Your task to perform on an android device: open sync settings in chrome Image 0: 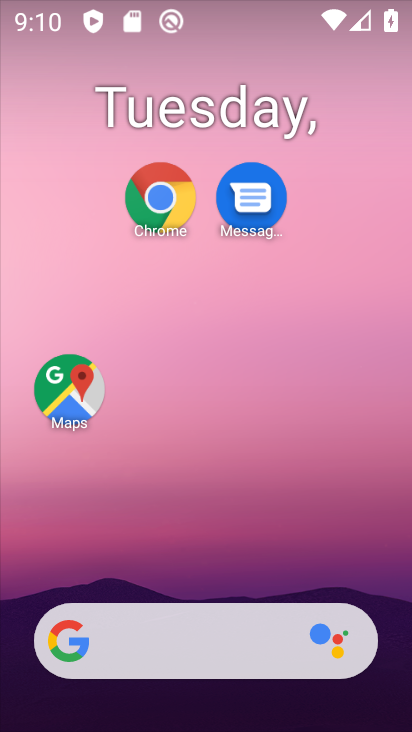
Step 0: click (171, 202)
Your task to perform on an android device: open sync settings in chrome Image 1: 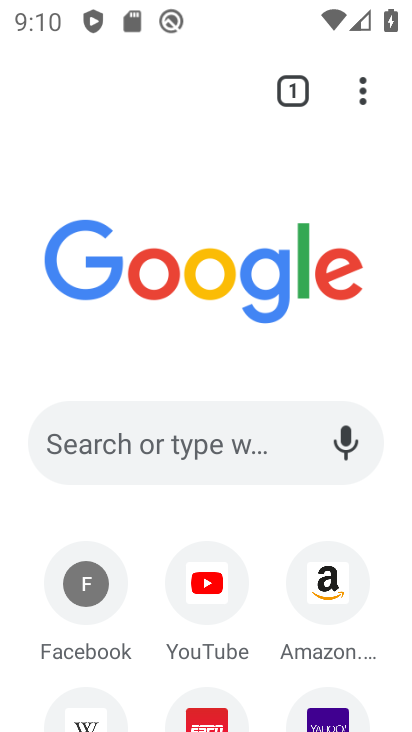
Step 1: click (356, 101)
Your task to perform on an android device: open sync settings in chrome Image 2: 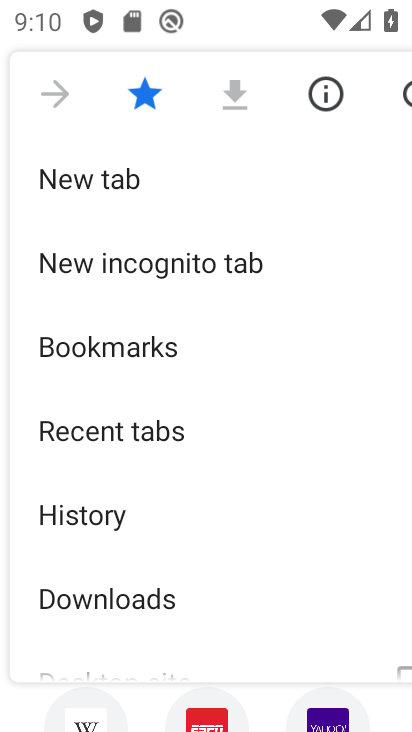
Step 2: drag from (248, 514) to (220, 288)
Your task to perform on an android device: open sync settings in chrome Image 3: 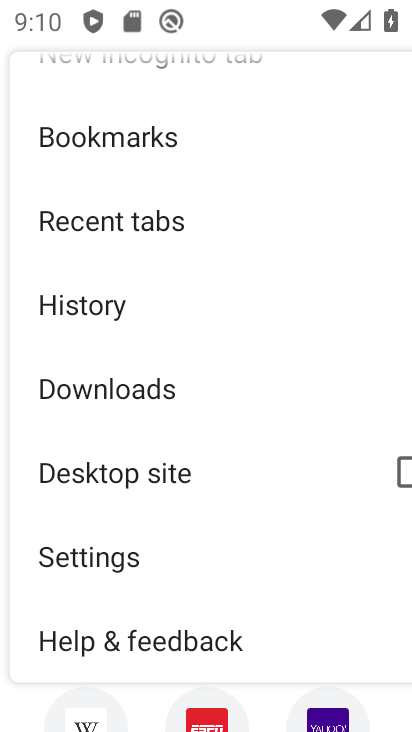
Step 3: click (144, 557)
Your task to perform on an android device: open sync settings in chrome Image 4: 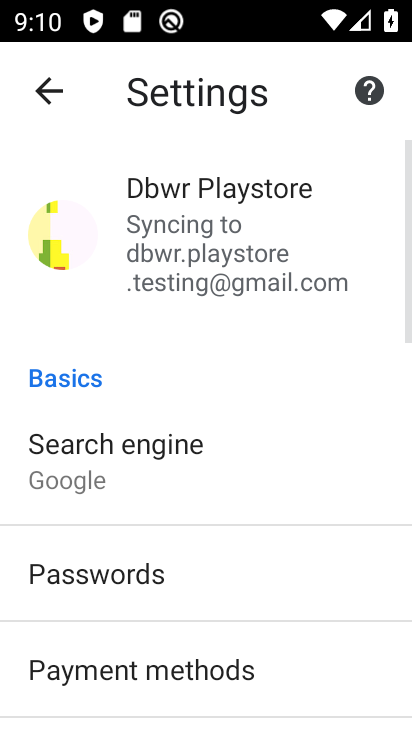
Step 4: click (135, 221)
Your task to perform on an android device: open sync settings in chrome Image 5: 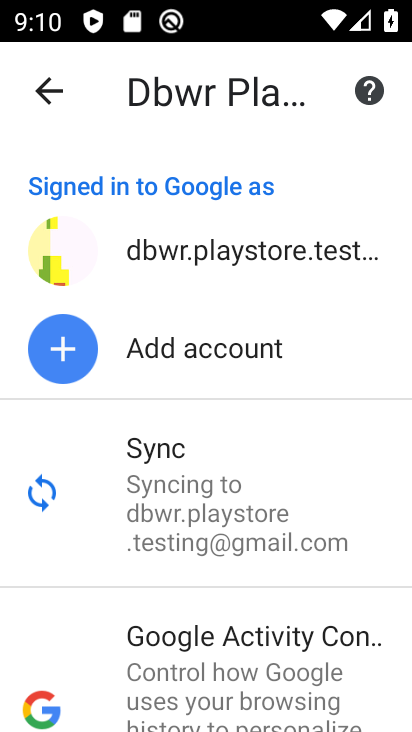
Step 5: task complete